Your task to perform on an android device: Open Reddit.com Image 0: 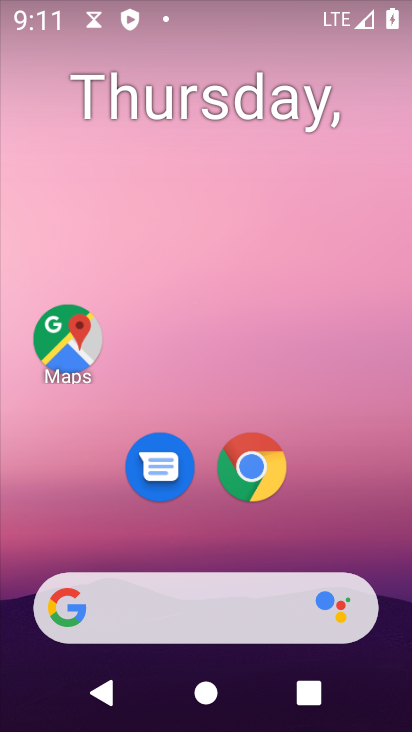
Step 0: click (273, 477)
Your task to perform on an android device: Open Reddit.com Image 1: 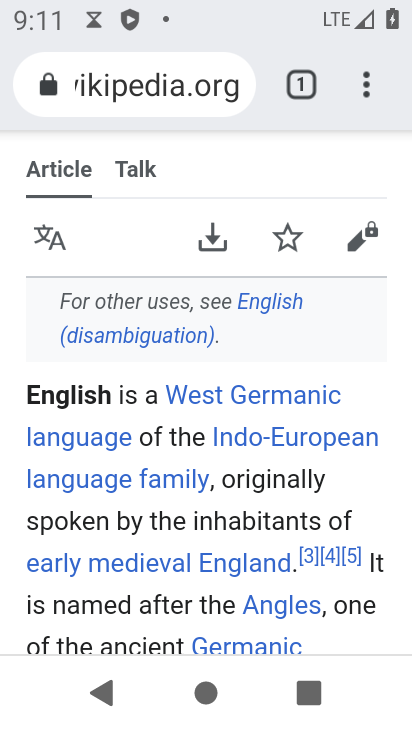
Step 1: click (168, 91)
Your task to perform on an android device: Open Reddit.com Image 2: 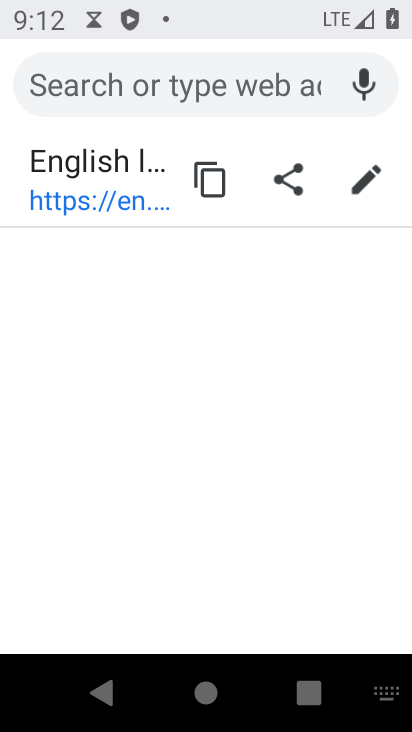
Step 2: type "Reddit.com"
Your task to perform on an android device: Open Reddit.com Image 3: 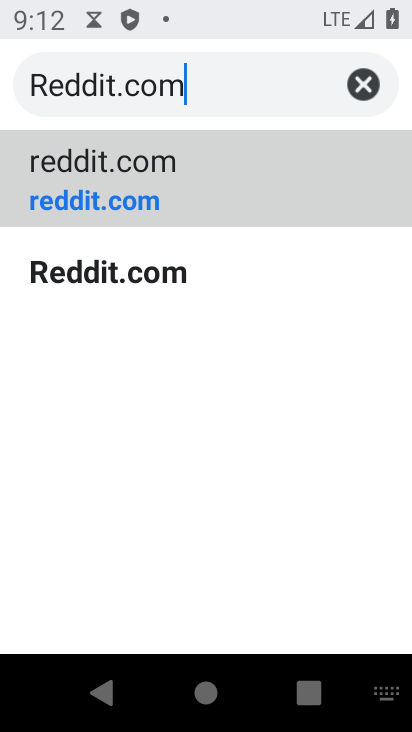
Step 3: click (103, 186)
Your task to perform on an android device: Open Reddit.com Image 4: 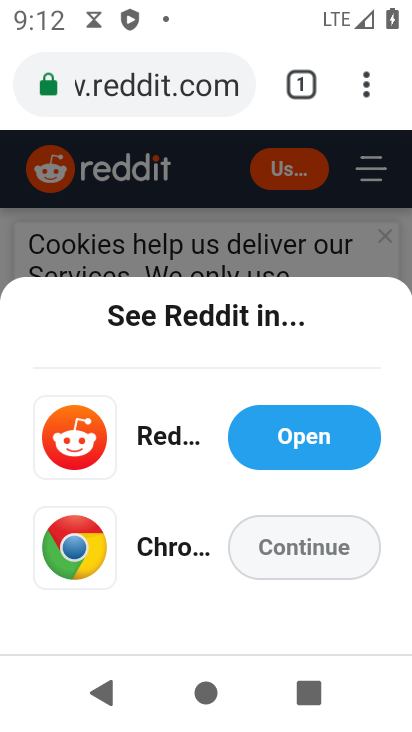
Step 4: task complete